Your task to perform on an android device: check the backup settings in the google photos Image 0: 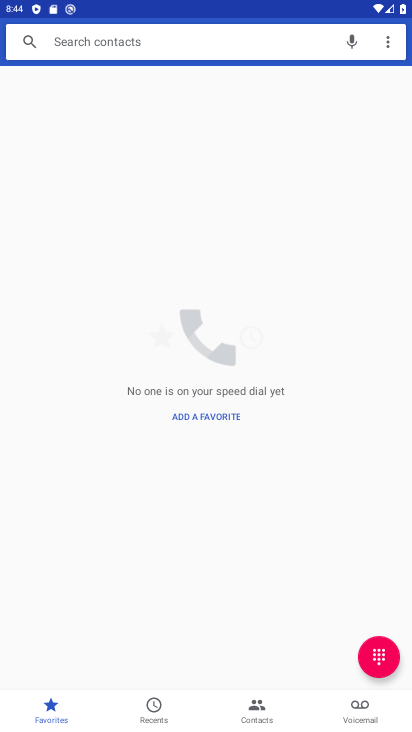
Step 0: press home button
Your task to perform on an android device: check the backup settings in the google photos Image 1: 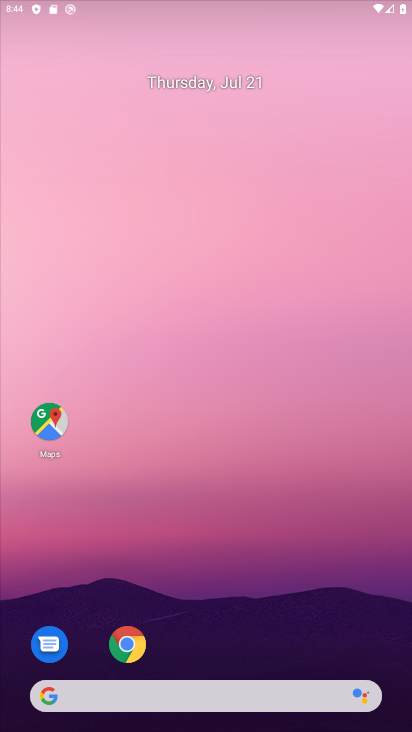
Step 1: drag from (259, 643) to (170, 207)
Your task to perform on an android device: check the backup settings in the google photos Image 2: 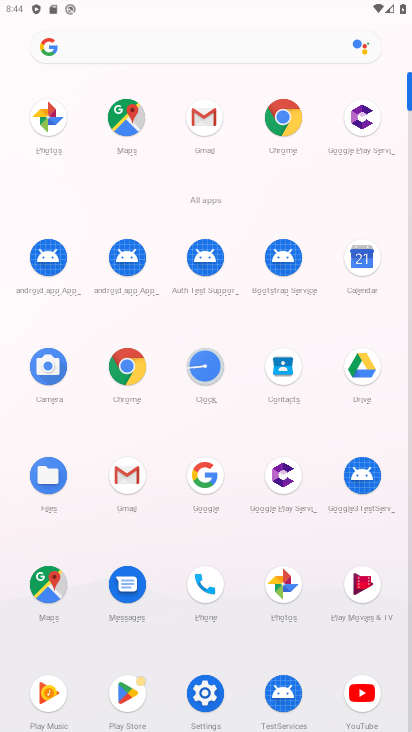
Step 2: click (279, 595)
Your task to perform on an android device: check the backup settings in the google photos Image 3: 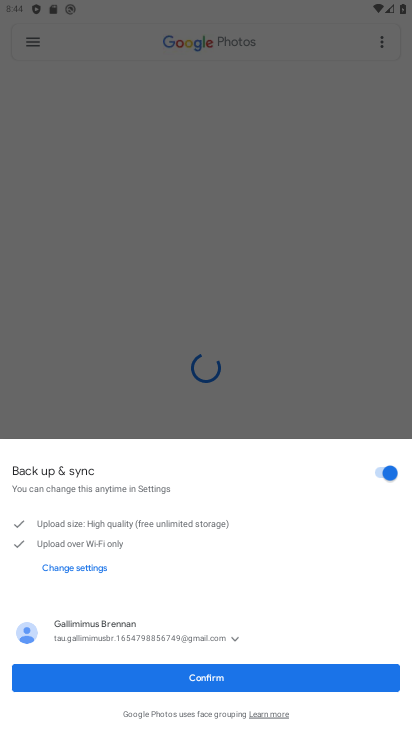
Step 3: click (216, 682)
Your task to perform on an android device: check the backup settings in the google photos Image 4: 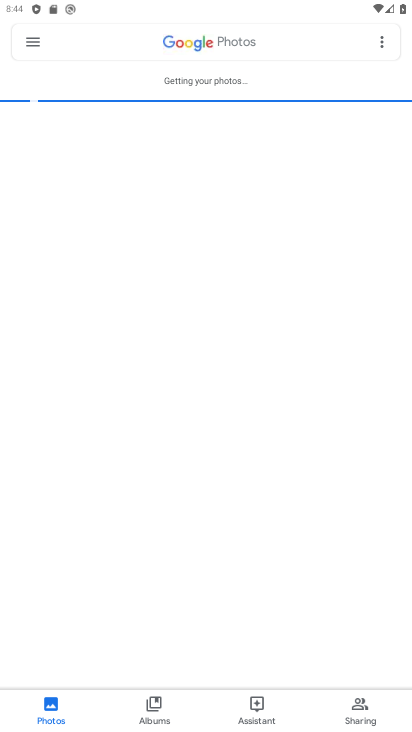
Step 4: click (32, 44)
Your task to perform on an android device: check the backup settings in the google photos Image 5: 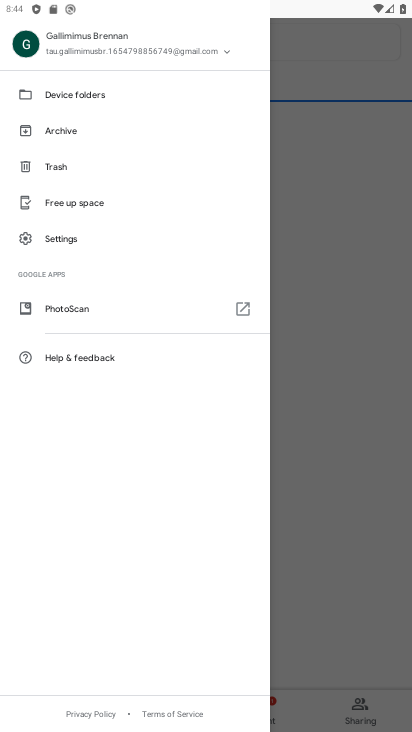
Step 5: click (53, 247)
Your task to perform on an android device: check the backup settings in the google photos Image 6: 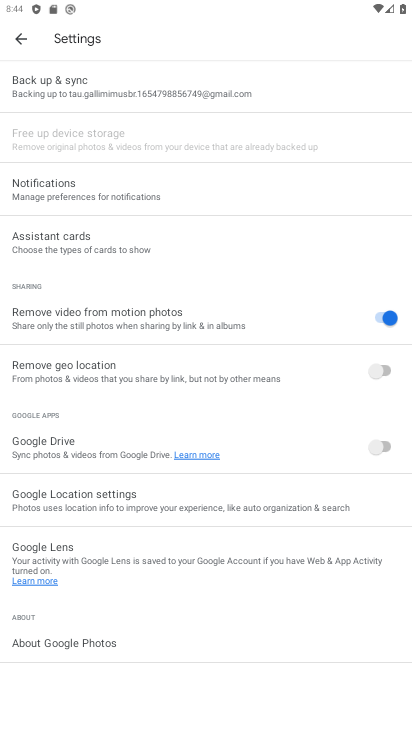
Step 6: click (57, 74)
Your task to perform on an android device: check the backup settings in the google photos Image 7: 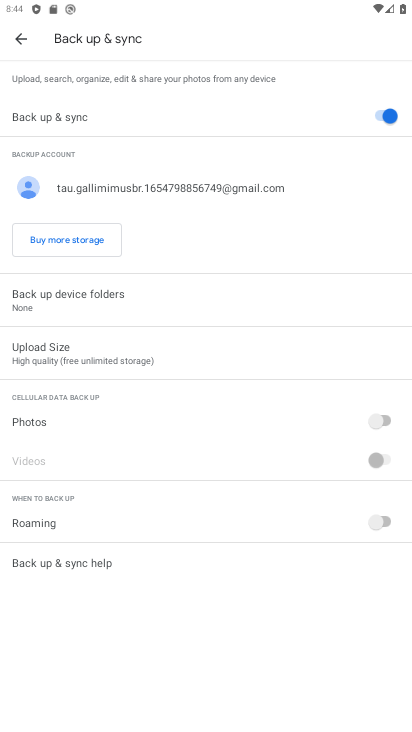
Step 7: task complete